Your task to perform on an android device: turn on javascript in the chrome app Image 0: 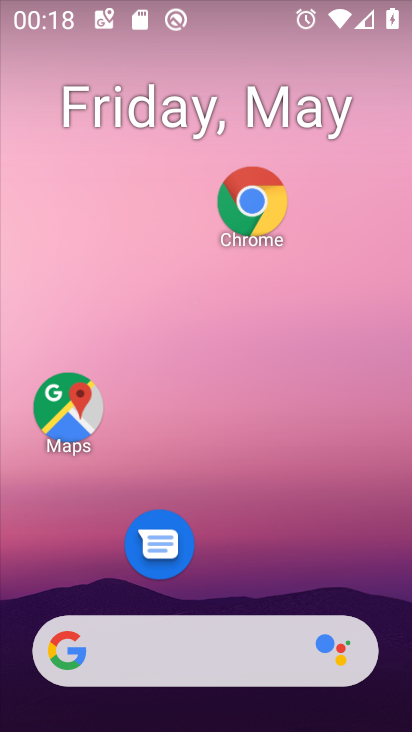
Step 0: click (249, 192)
Your task to perform on an android device: turn on javascript in the chrome app Image 1: 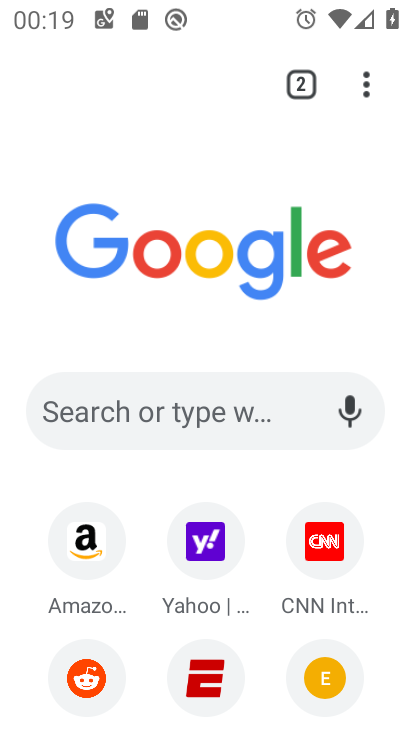
Step 1: click (367, 82)
Your task to perform on an android device: turn on javascript in the chrome app Image 2: 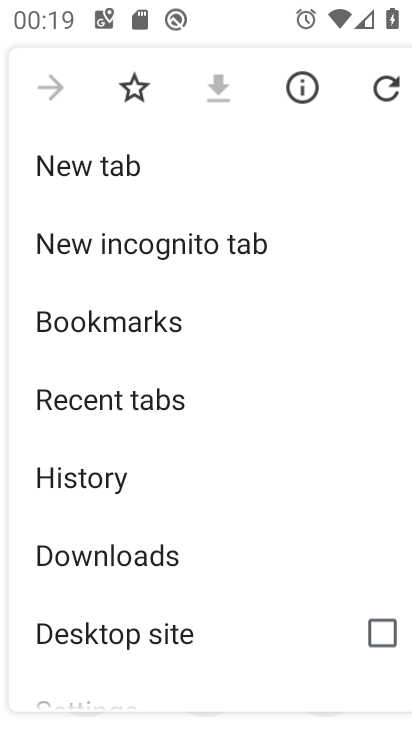
Step 2: drag from (217, 653) to (231, 97)
Your task to perform on an android device: turn on javascript in the chrome app Image 3: 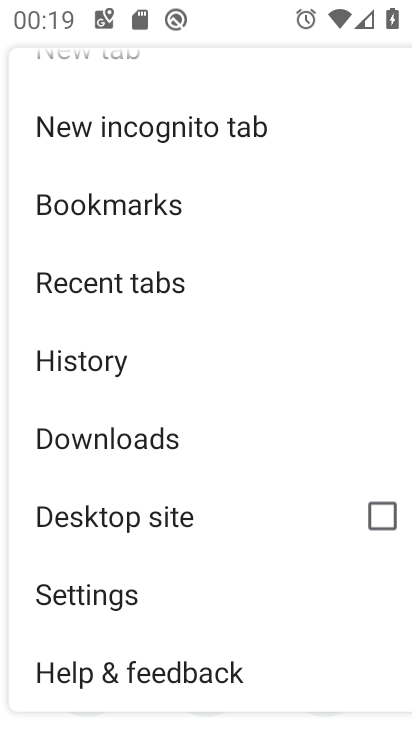
Step 3: click (147, 591)
Your task to perform on an android device: turn on javascript in the chrome app Image 4: 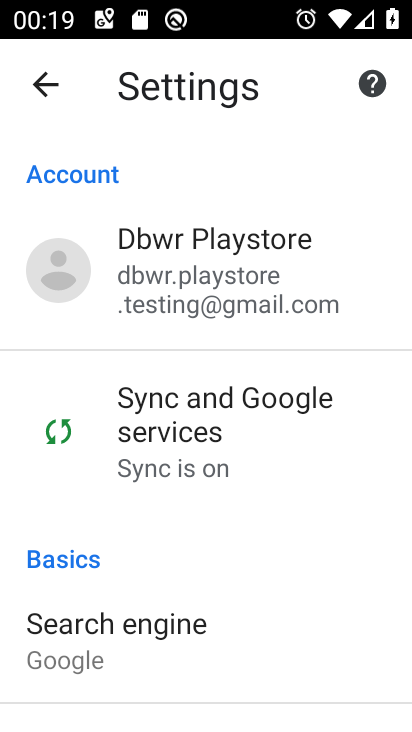
Step 4: drag from (165, 664) to (208, 62)
Your task to perform on an android device: turn on javascript in the chrome app Image 5: 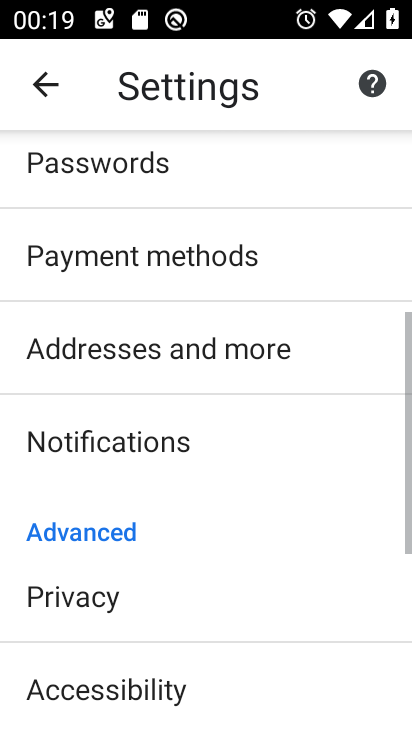
Step 5: drag from (233, 684) to (264, 118)
Your task to perform on an android device: turn on javascript in the chrome app Image 6: 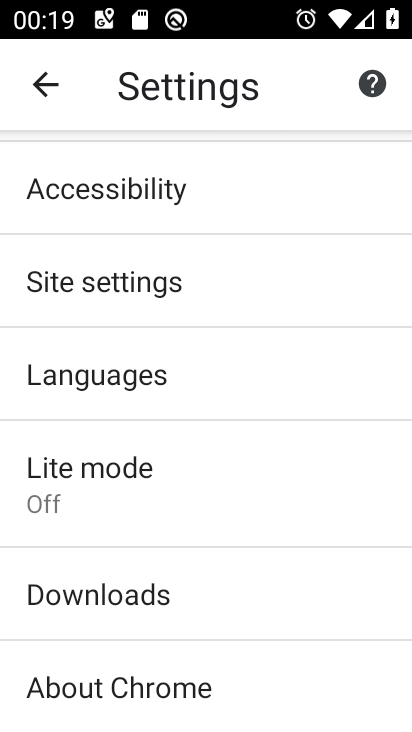
Step 6: click (198, 282)
Your task to perform on an android device: turn on javascript in the chrome app Image 7: 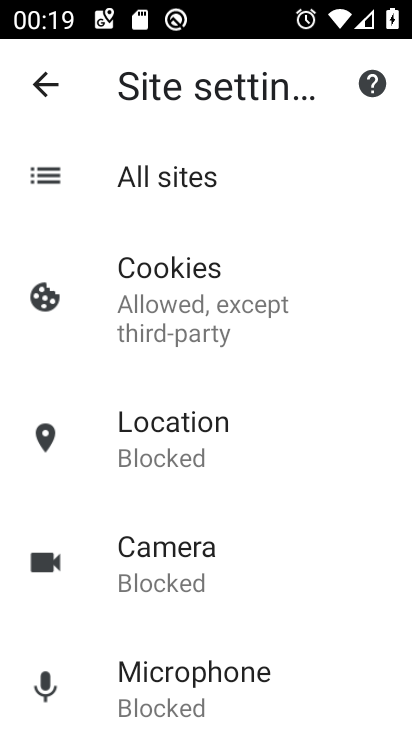
Step 7: drag from (214, 642) to (246, 157)
Your task to perform on an android device: turn on javascript in the chrome app Image 8: 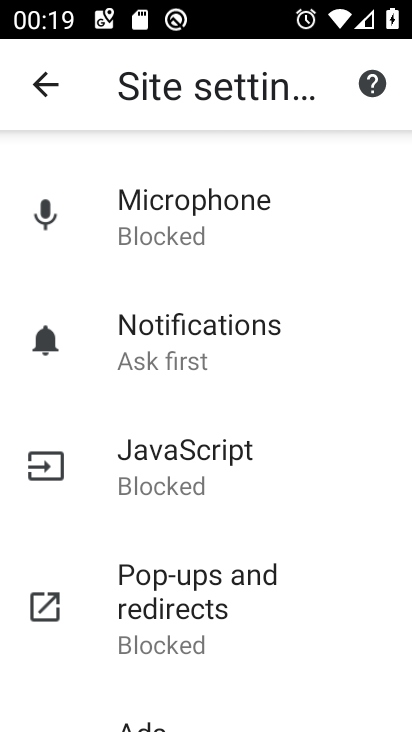
Step 8: click (234, 477)
Your task to perform on an android device: turn on javascript in the chrome app Image 9: 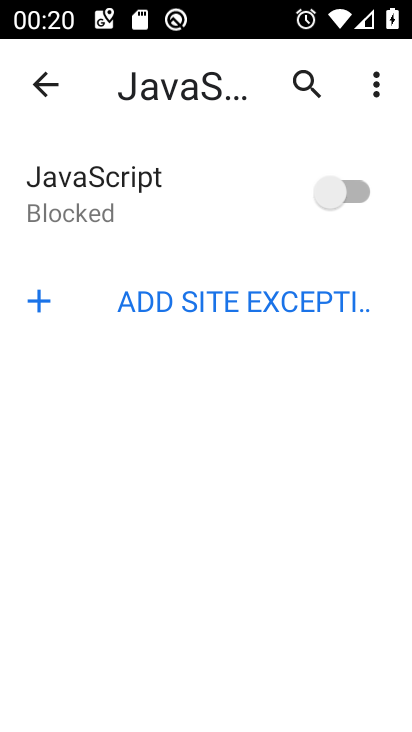
Step 9: click (349, 191)
Your task to perform on an android device: turn on javascript in the chrome app Image 10: 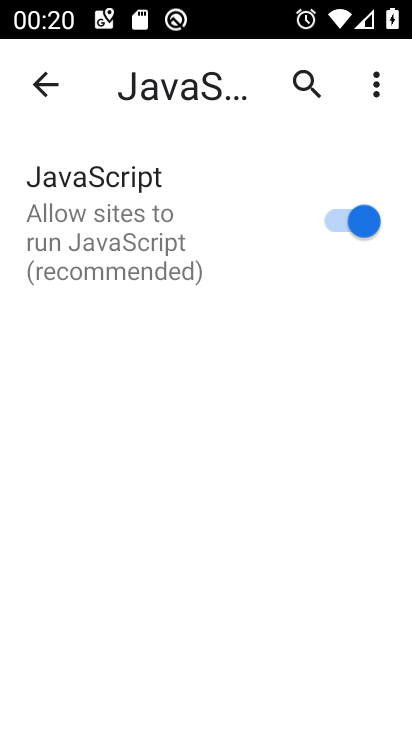
Step 10: task complete